Your task to perform on an android device: What's the weather going to be this weekend? Image 0: 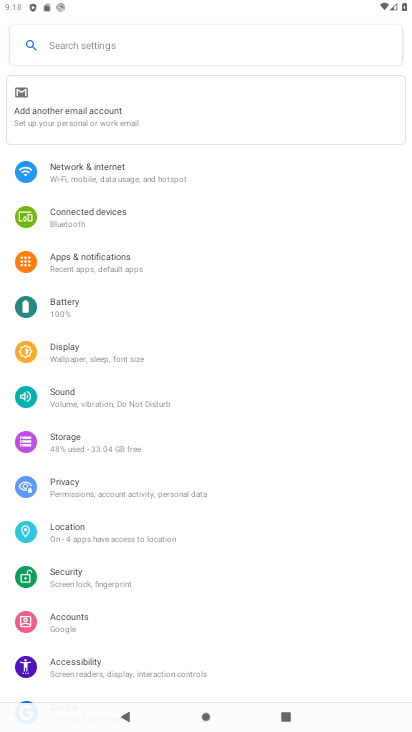
Step 0: press home button
Your task to perform on an android device: What's the weather going to be this weekend? Image 1: 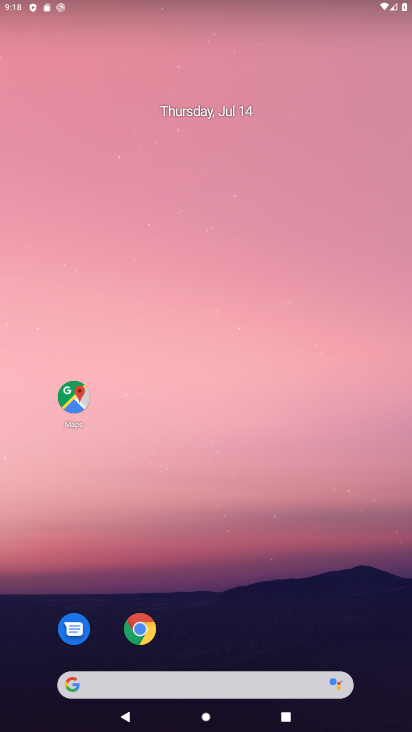
Step 1: drag from (254, 638) to (261, 209)
Your task to perform on an android device: What's the weather going to be this weekend? Image 2: 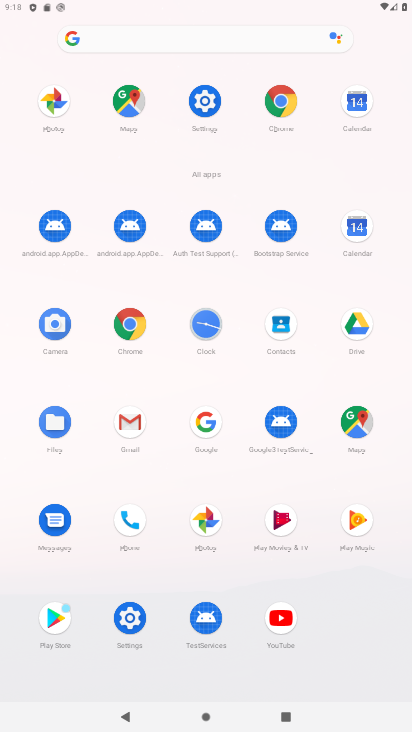
Step 2: click (202, 428)
Your task to perform on an android device: What's the weather going to be this weekend? Image 3: 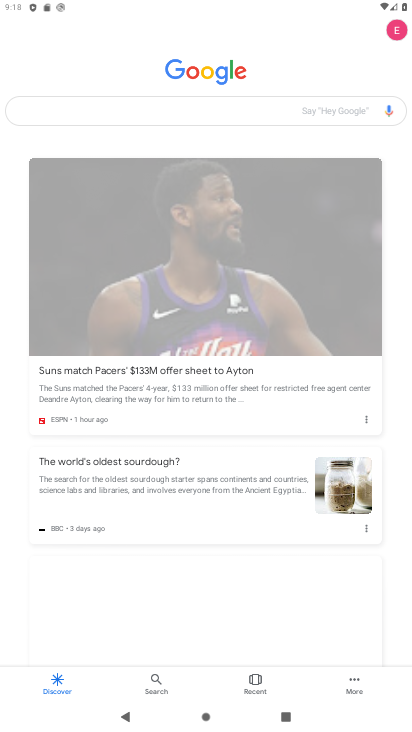
Step 3: click (174, 107)
Your task to perform on an android device: What's the weather going to be this weekend? Image 4: 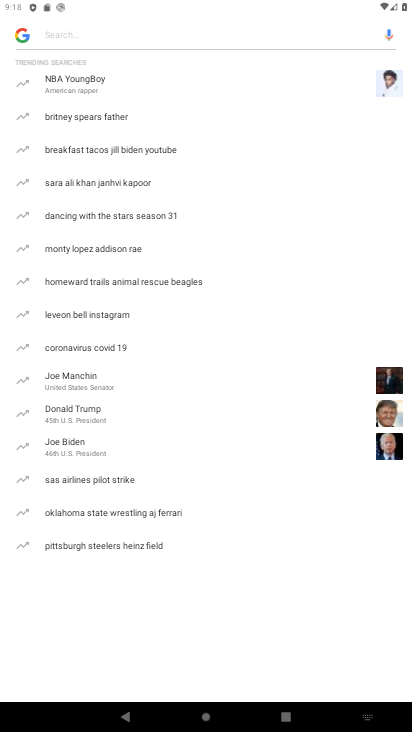
Step 4: type "whats the weather going to be this weekend"
Your task to perform on an android device: What's the weather going to be this weekend? Image 5: 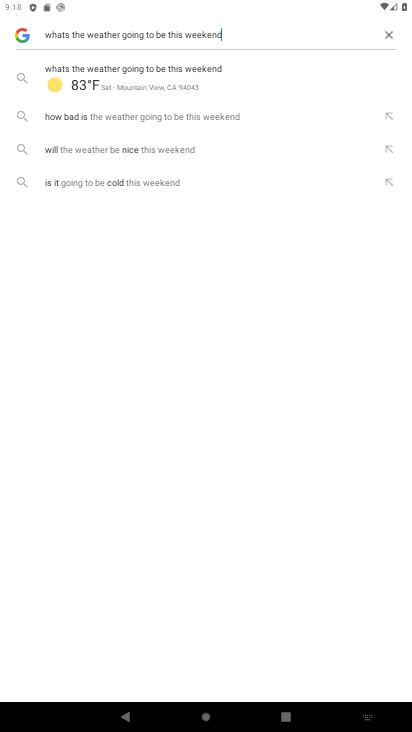
Step 5: click (196, 83)
Your task to perform on an android device: What's the weather going to be this weekend? Image 6: 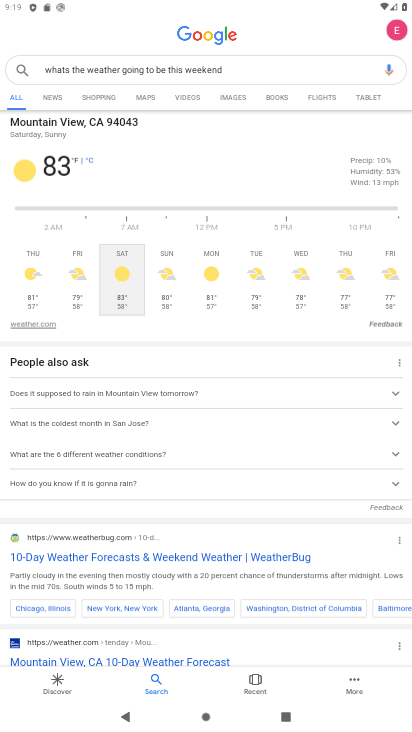
Step 6: task complete